Your task to perform on an android device: What's the weather going to be this weekend? Image 0: 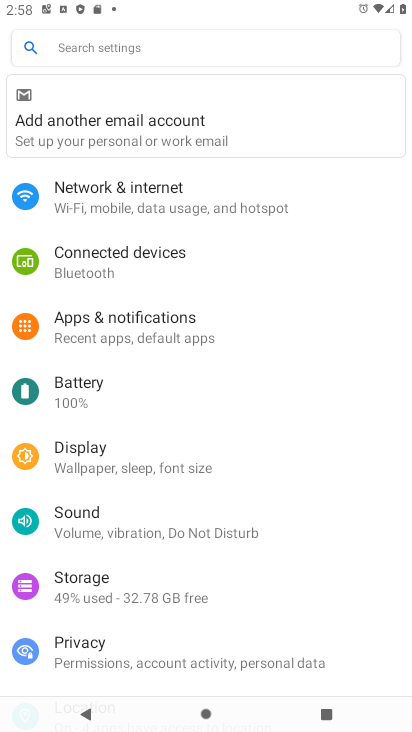
Step 0: press home button
Your task to perform on an android device: What's the weather going to be this weekend? Image 1: 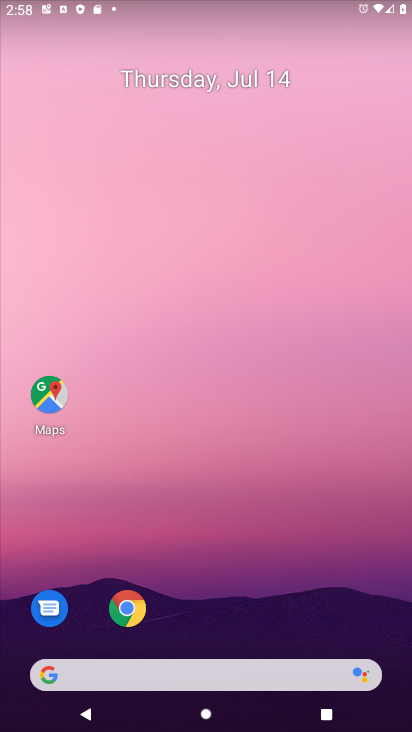
Step 1: task complete